Your task to perform on an android device: Search for vegetarian restaurants on Maps Image 0: 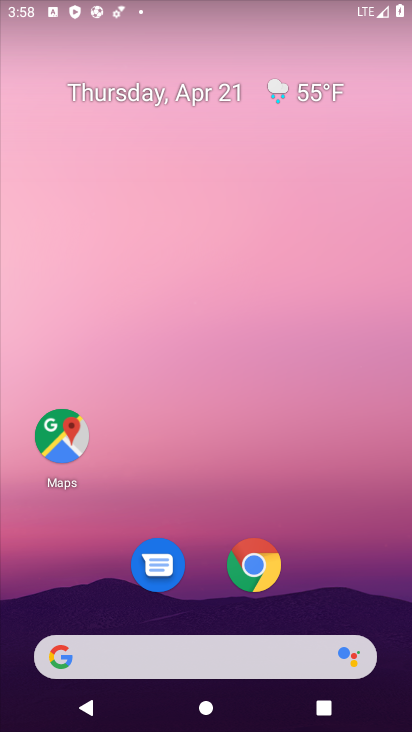
Step 0: click (61, 429)
Your task to perform on an android device: Search for vegetarian restaurants on Maps Image 1: 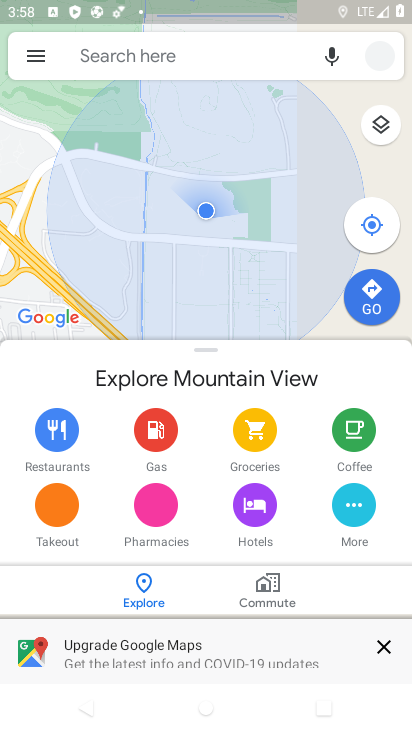
Step 1: click (195, 60)
Your task to perform on an android device: Search for vegetarian restaurants on Maps Image 2: 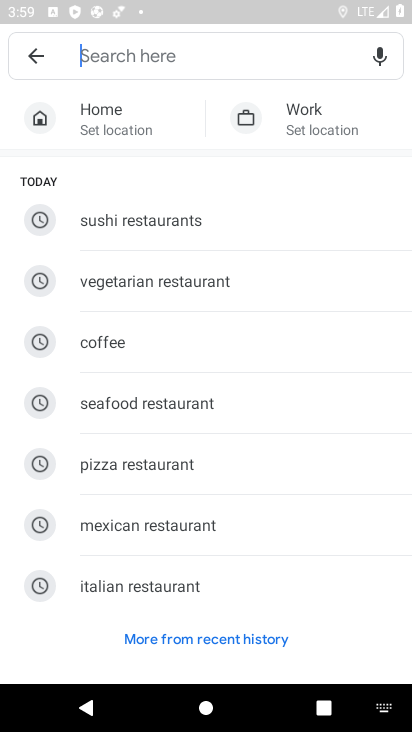
Step 2: click (172, 277)
Your task to perform on an android device: Search for vegetarian restaurants on Maps Image 3: 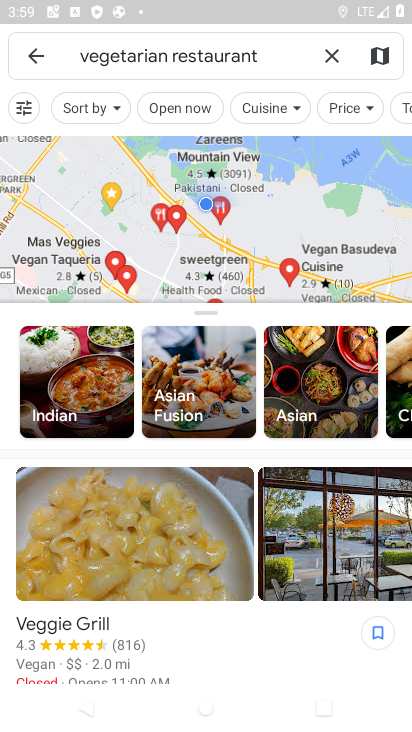
Step 3: task complete